Your task to perform on an android device: turn smart compose on in the gmail app Image 0: 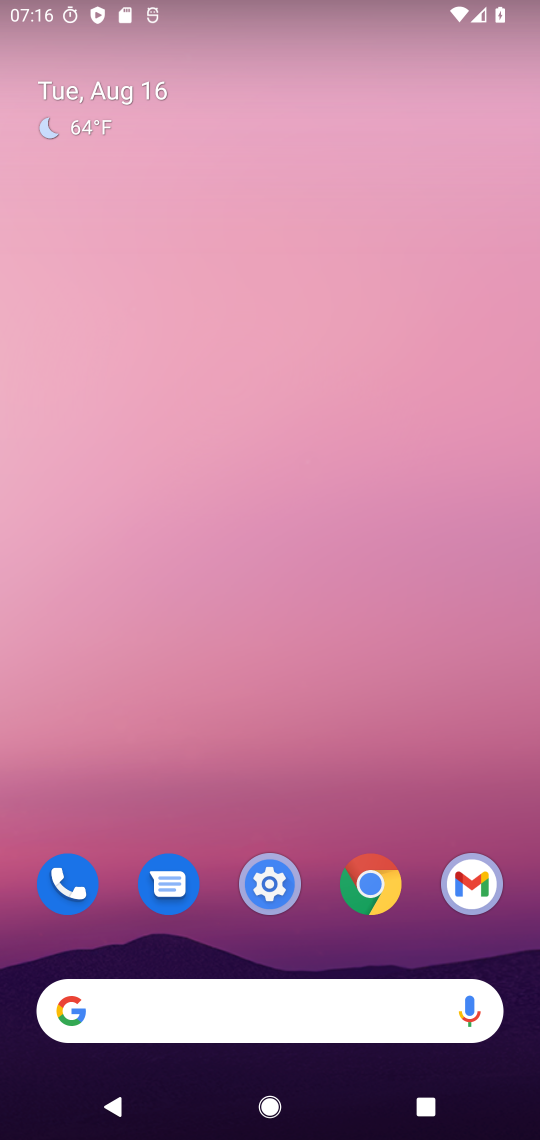
Step 0: press home button
Your task to perform on an android device: turn smart compose on in the gmail app Image 1: 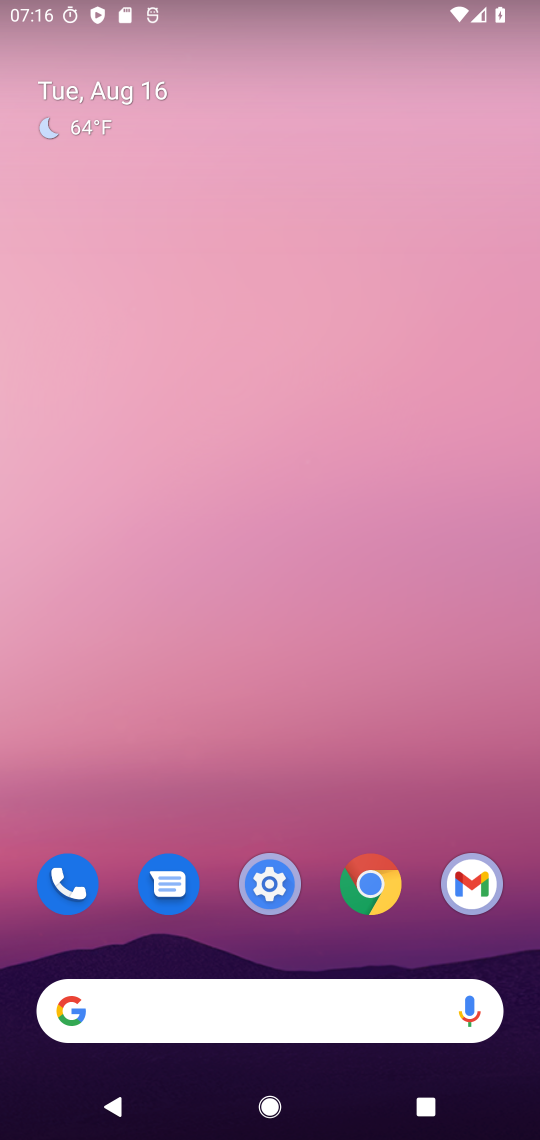
Step 1: click (459, 883)
Your task to perform on an android device: turn smart compose on in the gmail app Image 2: 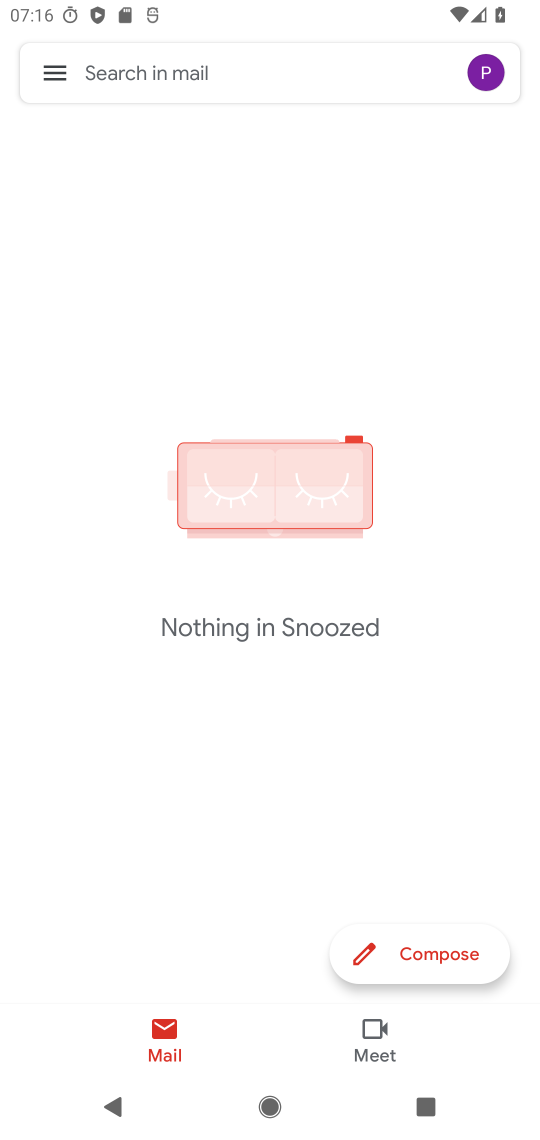
Step 2: click (61, 70)
Your task to perform on an android device: turn smart compose on in the gmail app Image 3: 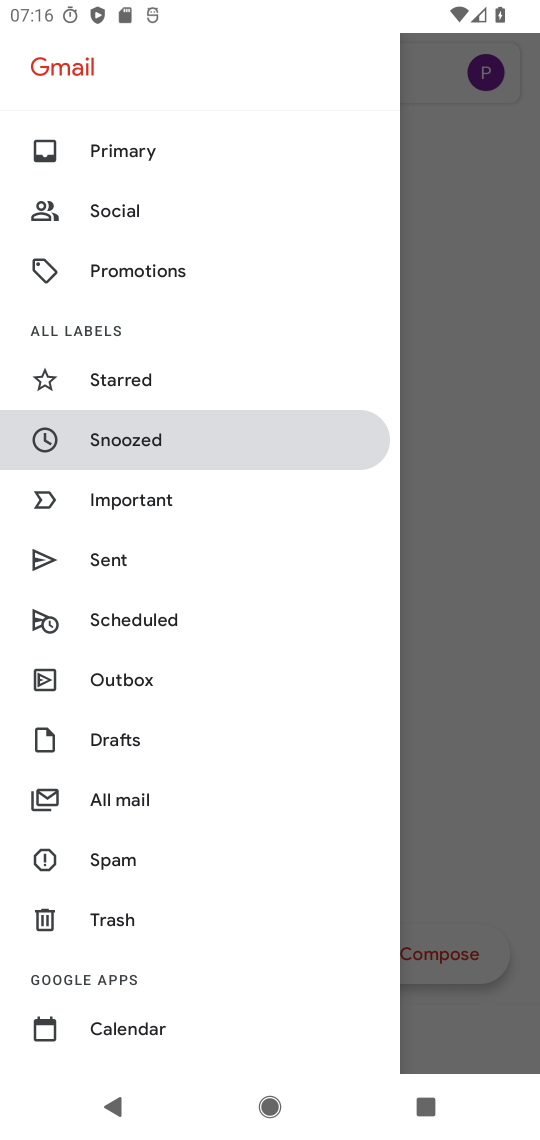
Step 3: drag from (171, 976) to (154, 173)
Your task to perform on an android device: turn smart compose on in the gmail app Image 4: 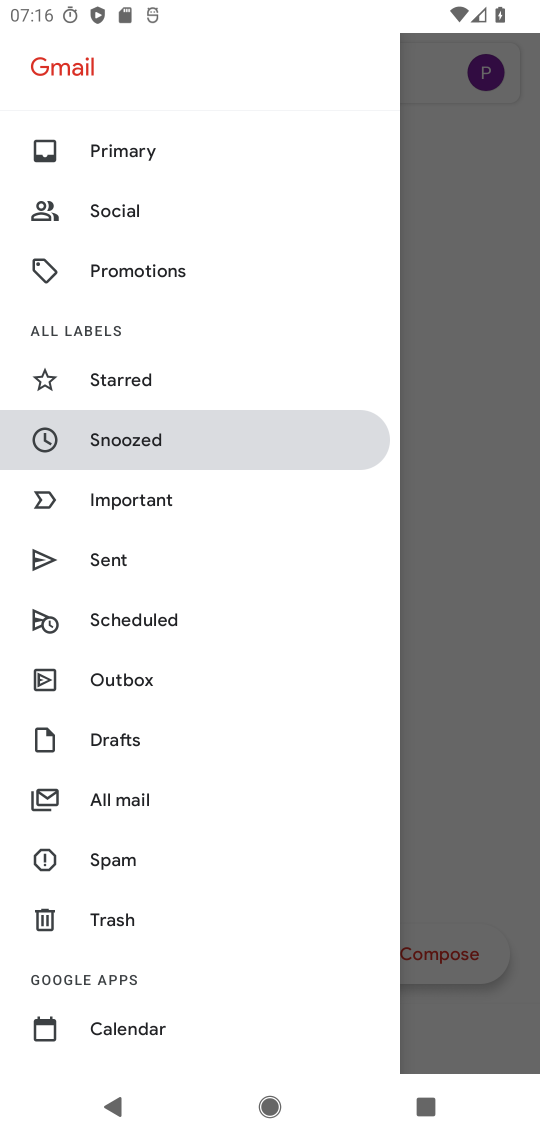
Step 4: drag from (235, 982) to (196, 286)
Your task to perform on an android device: turn smart compose on in the gmail app Image 5: 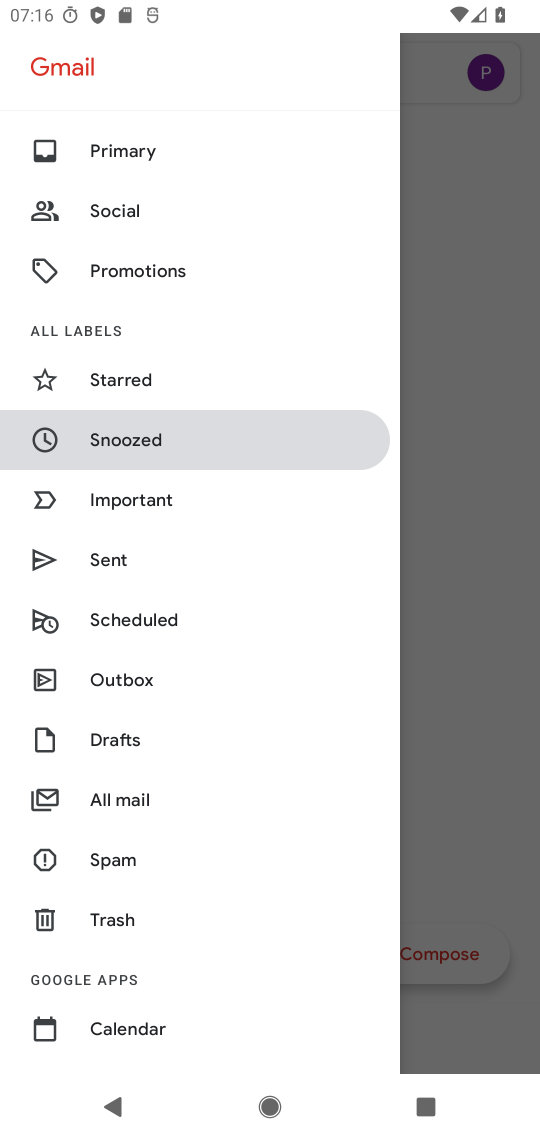
Step 5: drag from (220, 987) to (180, 274)
Your task to perform on an android device: turn smart compose on in the gmail app Image 6: 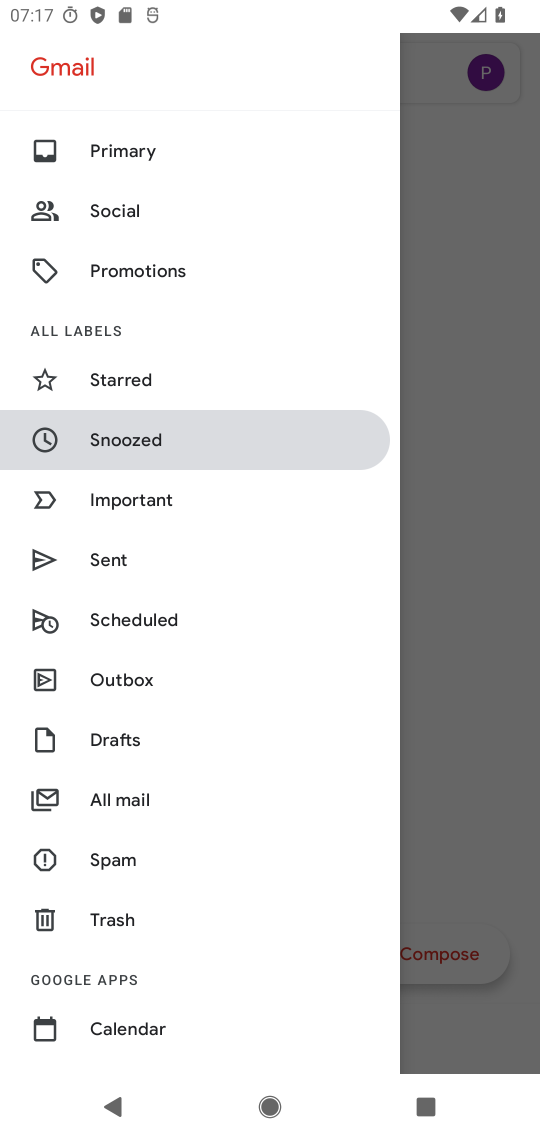
Step 6: drag from (176, 986) to (108, 280)
Your task to perform on an android device: turn smart compose on in the gmail app Image 7: 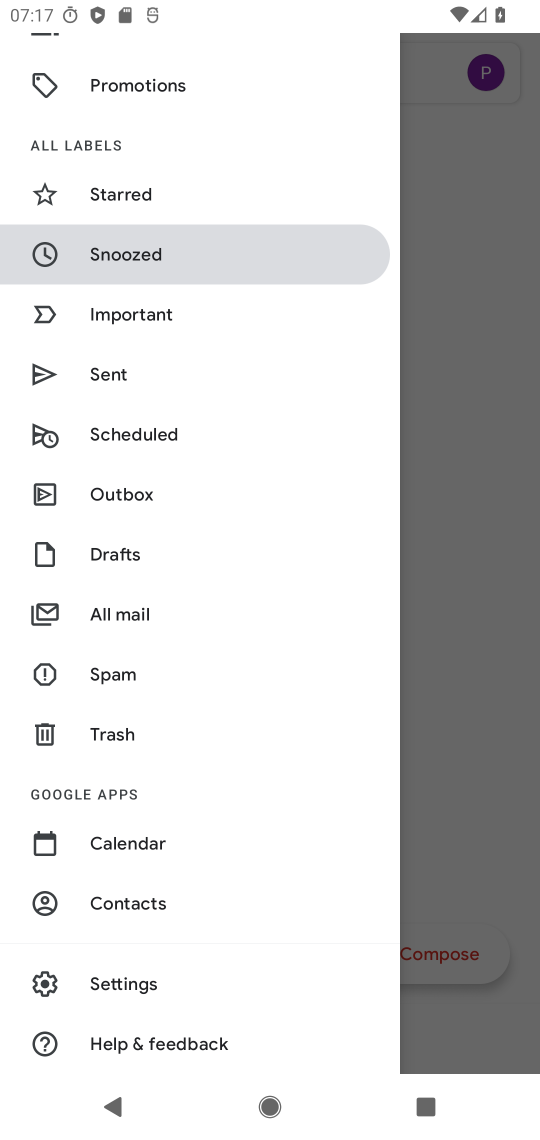
Step 7: click (143, 977)
Your task to perform on an android device: turn smart compose on in the gmail app Image 8: 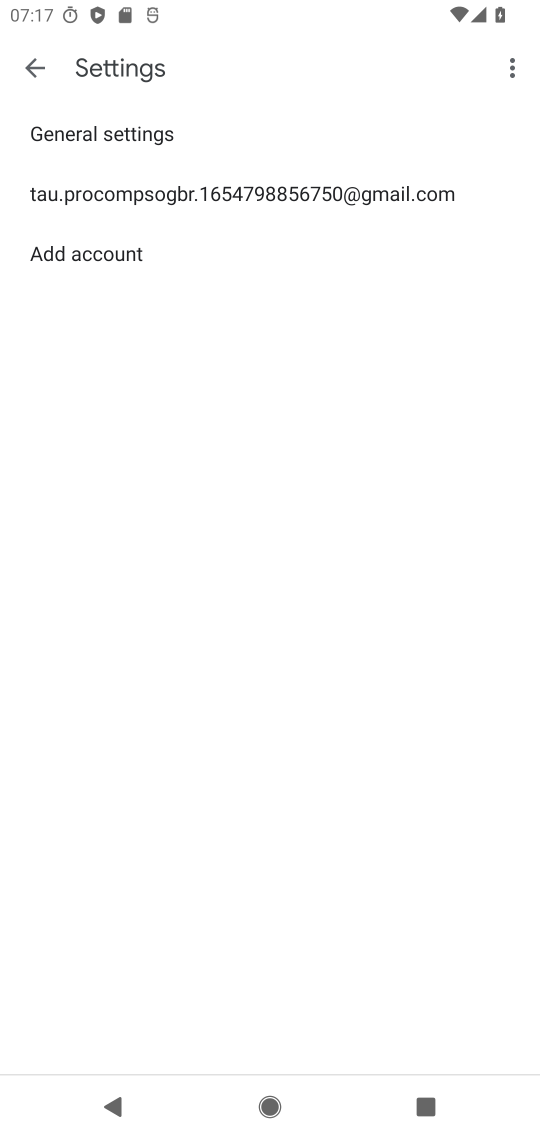
Step 8: click (99, 198)
Your task to perform on an android device: turn smart compose on in the gmail app Image 9: 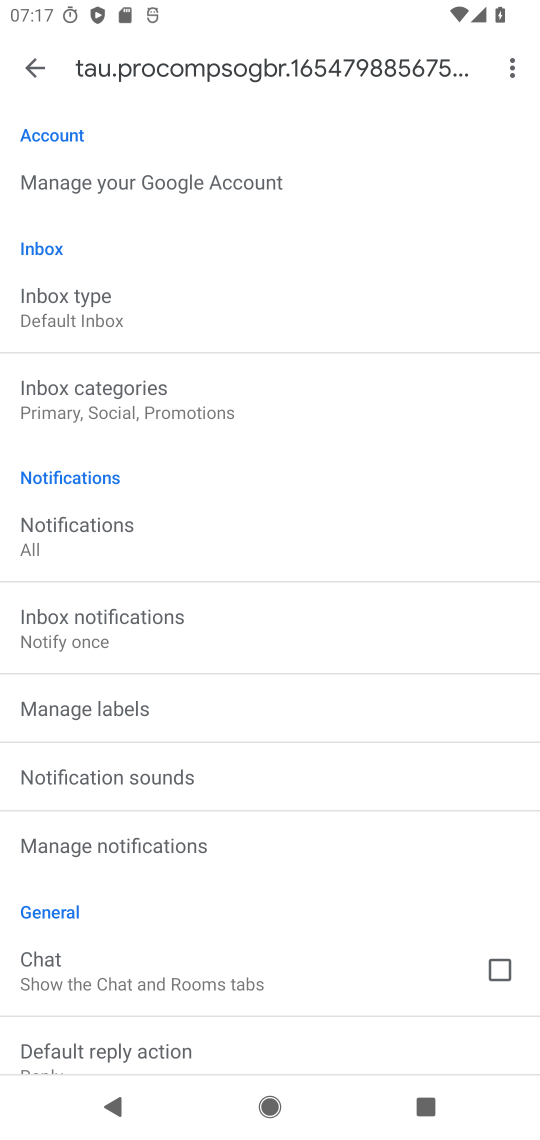
Step 9: task complete